Your task to perform on an android device: allow cookies in the chrome app Image 0: 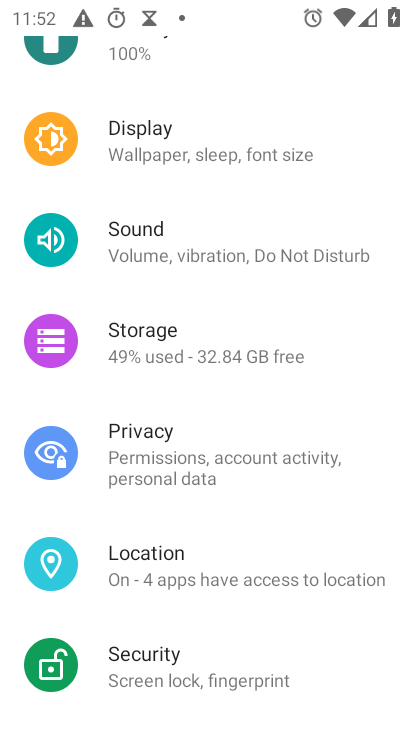
Step 0: press home button
Your task to perform on an android device: allow cookies in the chrome app Image 1: 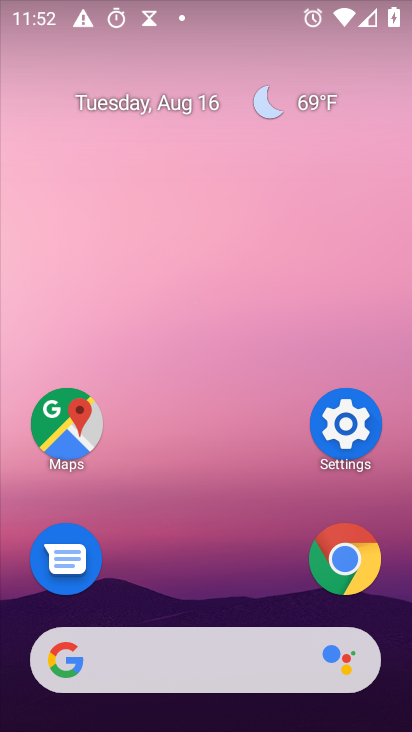
Step 1: click (338, 557)
Your task to perform on an android device: allow cookies in the chrome app Image 2: 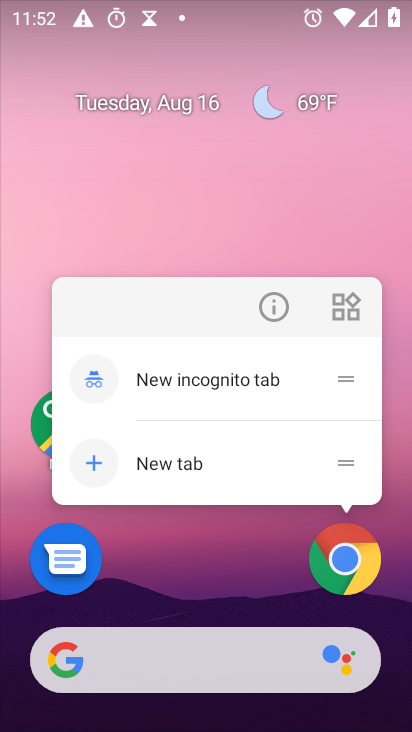
Step 2: click (336, 580)
Your task to perform on an android device: allow cookies in the chrome app Image 3: 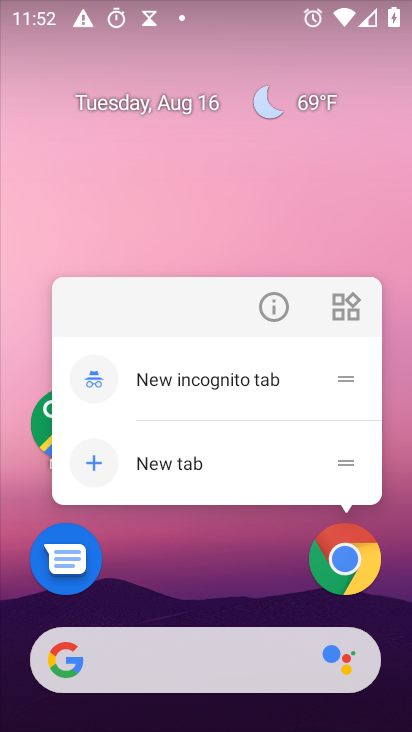
Step 3: click (357, 572)
Your task to perform on an android device: allow cookies in the chrome app Image 4: 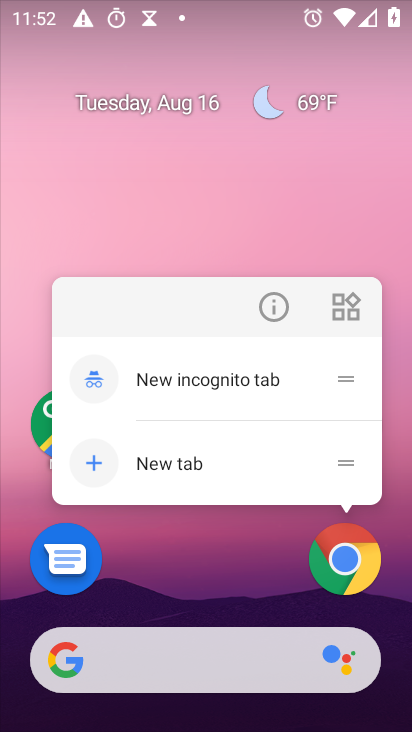
Step 4: click (345, 574)
Your task to perform on an android device: allow cookies in the chrome app Image 5: 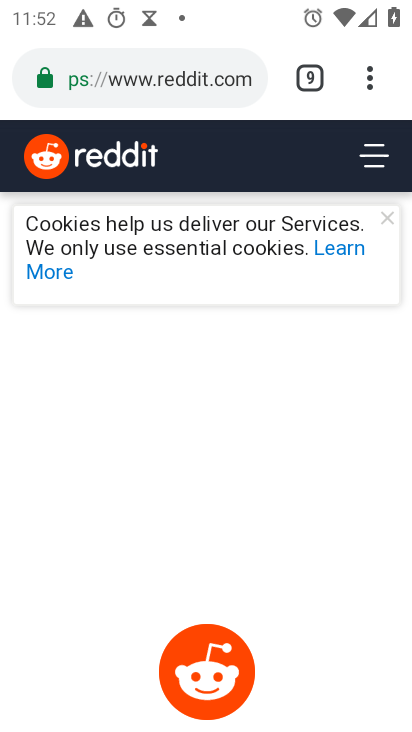
Step 5: drag from (367, 81) to (199, 622)
Your task to perform on an android device: allow cookies in the chrome app Image 6: 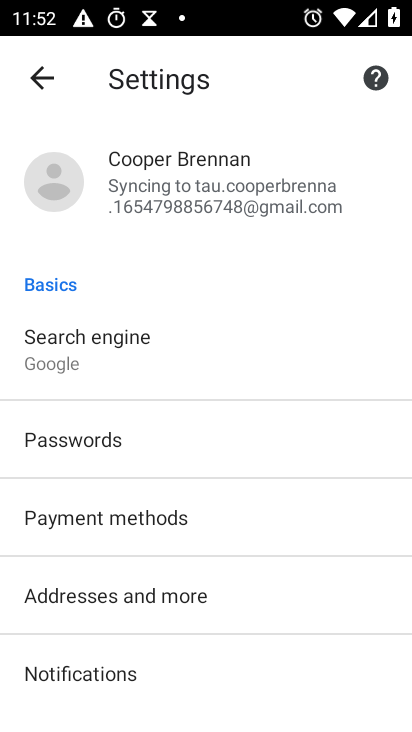
Step 6: drag from (212, 648) to (349, 116)
Your task to perform on an android device: allow cookies in the chrome app Image 7: 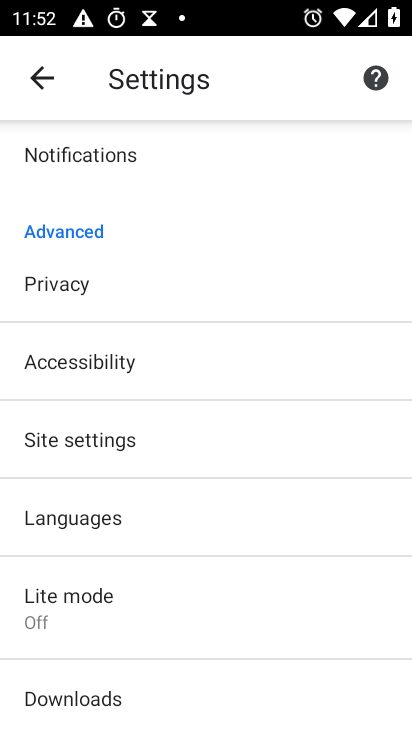
Step 7: click (67, 445)
Your task to perform on an android device: allow cookies in the chrome app Image 8: 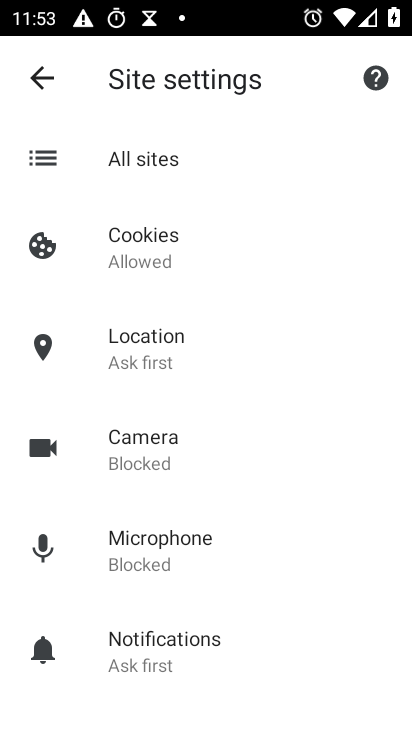
Step 8: click (138, 249)
Your task to perform on an android device: allow cookies in the chrome app Image 9: 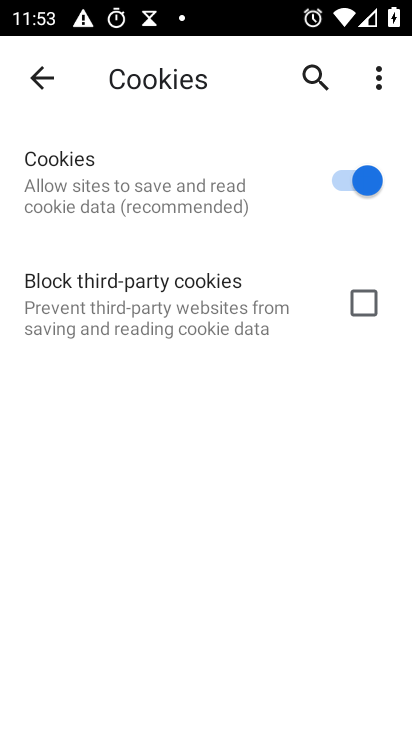
Step 9: task complete